Your task to perform on an android device: open a bookmark in the chrome app Image 0: 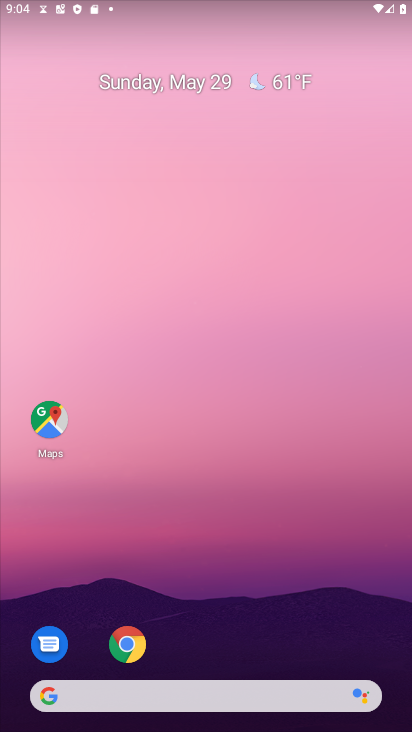
Step 0: click (141, 644)
Your task to perform on an android device: open a bookmark in the chrome app Image 1: 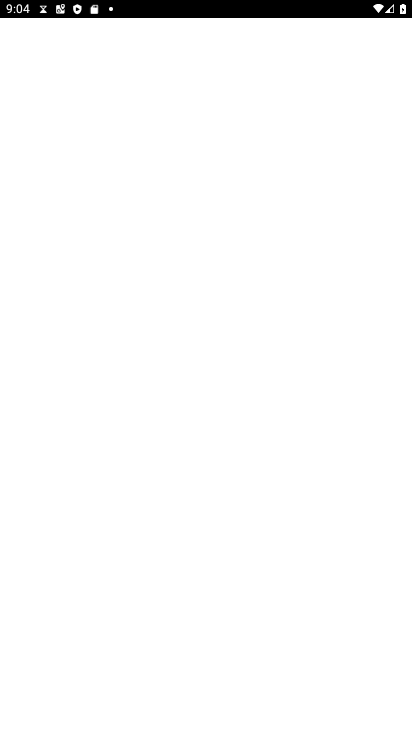
Step 1: click (141, 644)
Your task to perform on an android device: open a bookmark in the chrome app Image 2: 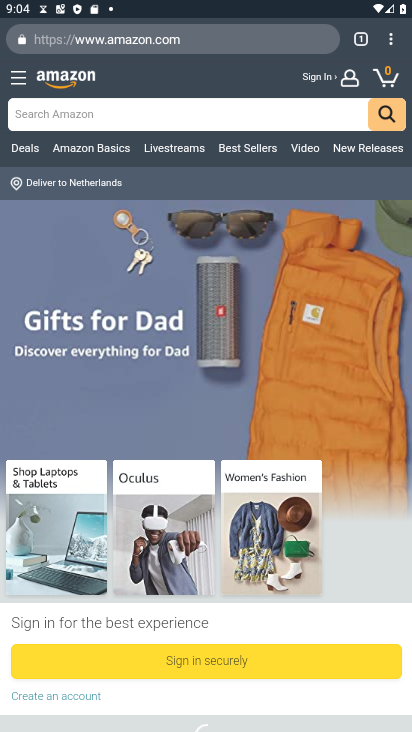
Step 2: drag from (150, 379) to (393, 44)
Your task to perform on an android device: open a bookmark in the chrome app Image 3: 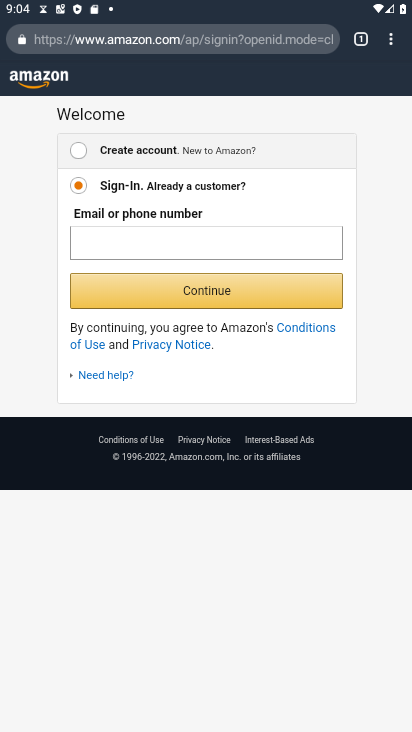
Step 3: drag from (393, 44) to (279, 148)
Your task to perform on an android device: open a bookmark in the chrome app Image 4: 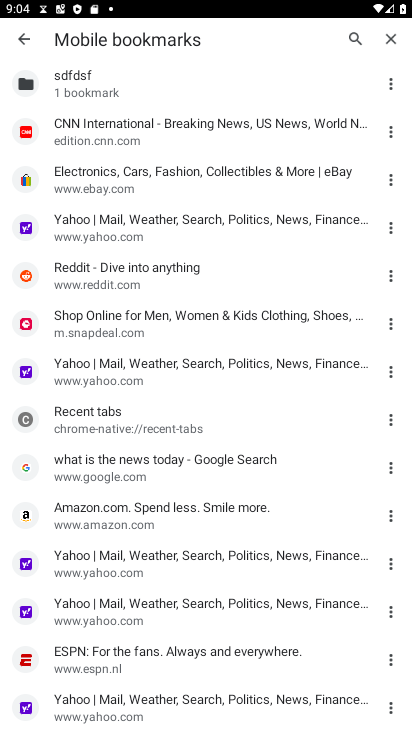
Step 4: click (224, 178)
Your task to perform on an android device: open a bookmark in the chrome app Image 5: 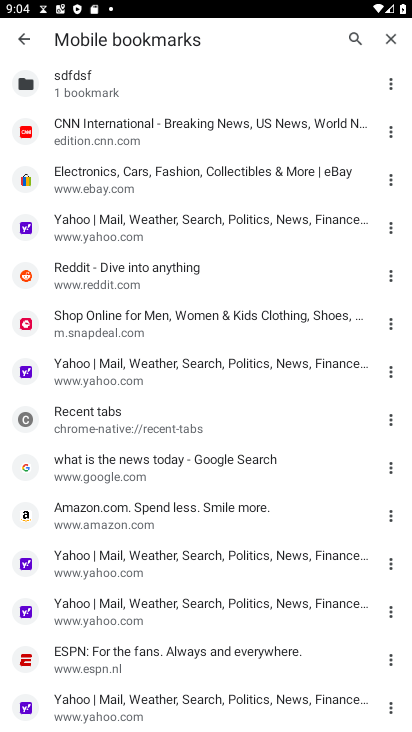
Step 5: task complete